Your task to perform on an android device: Go to eBay Image 0: 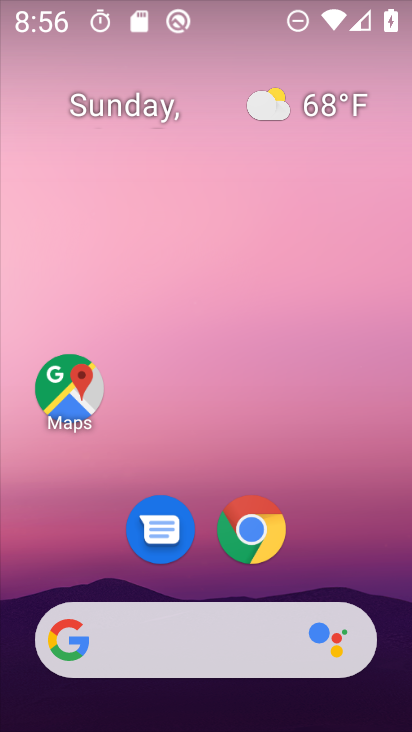
Step 0: press home button
Your task to perform on an android device: Go to eBay Image 1: 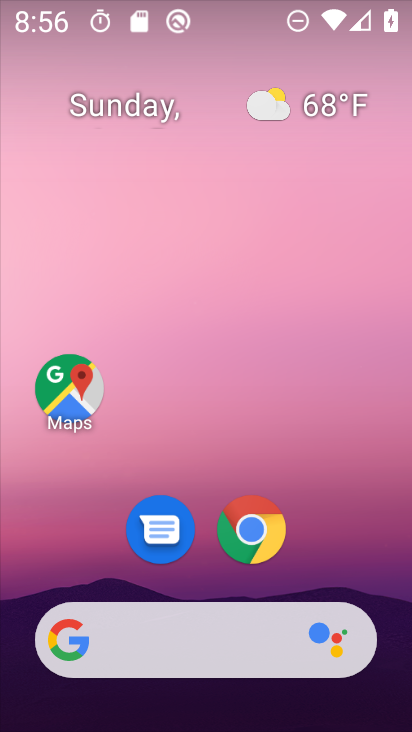
Step 1: click (251, 523)
Your task to perform on an android device: Go to eBay Image 2: 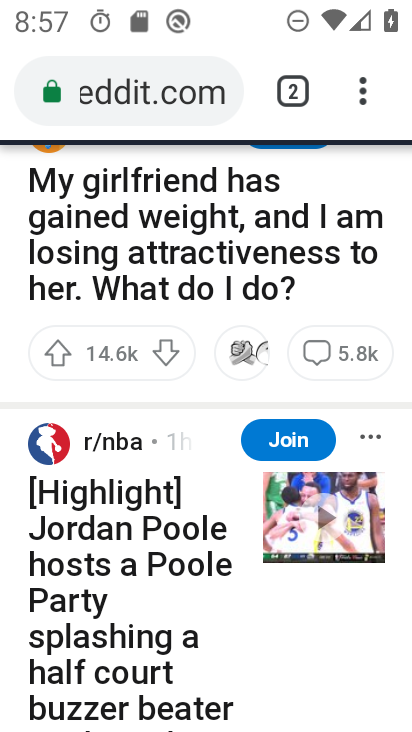
Step 2: click (291, 81)
Your task to perform on an android device: Go to eBay Image 3: 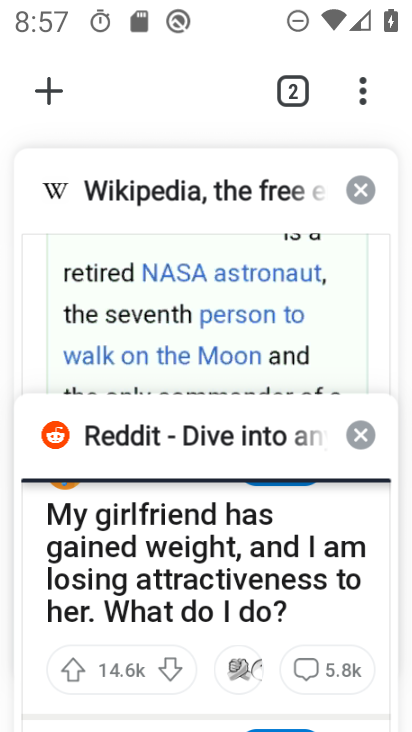
Step 3: click (361, 182)
Your task to perform on an android device: Go to eBay Image 4: 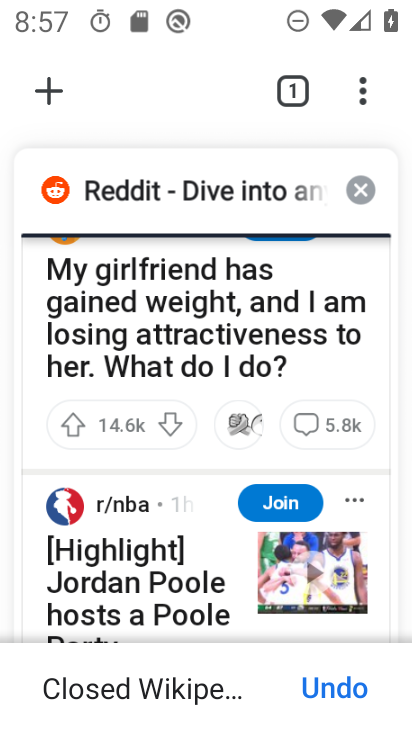
Step 4: click (362, 185)
Your task to perform on an android device: Go to eBay Image 5: 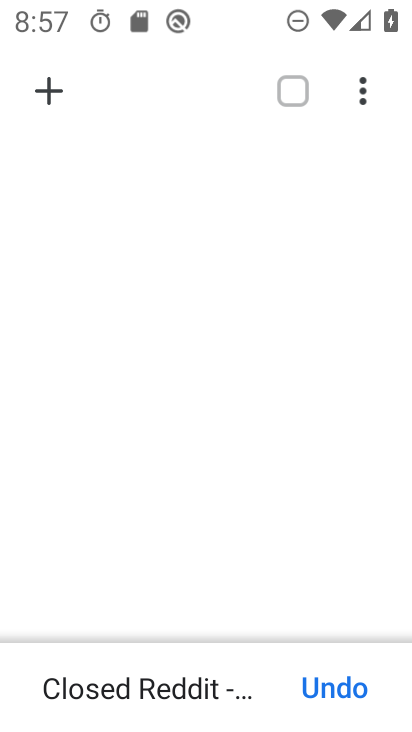
Step 5: click (57, 103)
Your task to perform on an android device: Go to eBay Image 6: 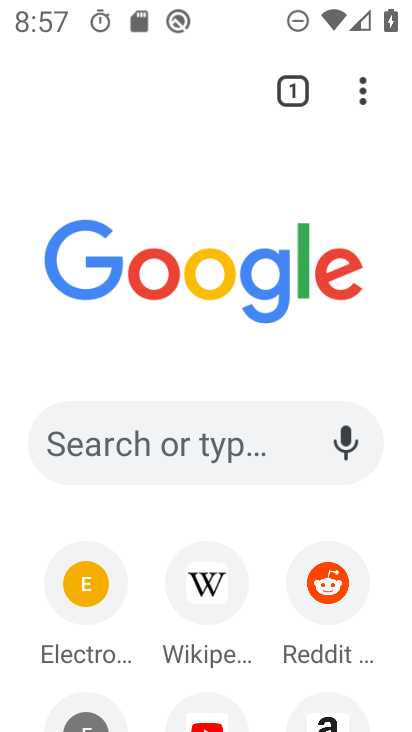
Step 6: click (135, 445)
Your task to perform on an android device: Go to eBay Image 7: 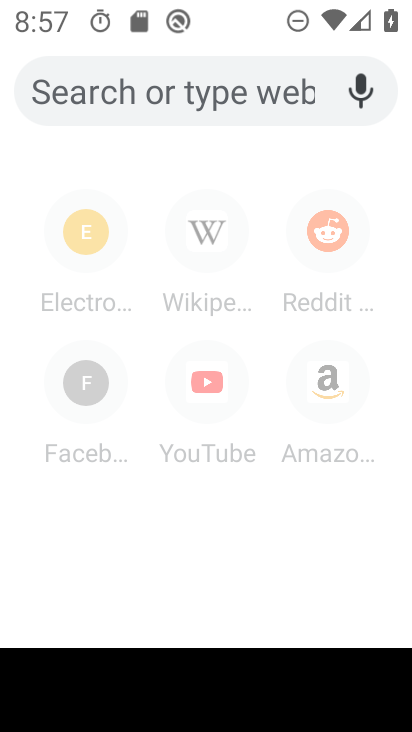
Step 7: type "ebay"
Your task to perform on an android device: Go to eBay Image 8: 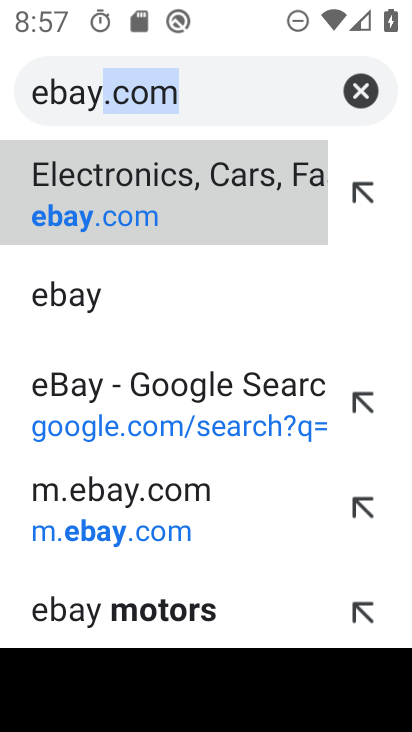
Step 8: click (170, 201)
Your task to perform on an android device: Go to eBay Image 9: 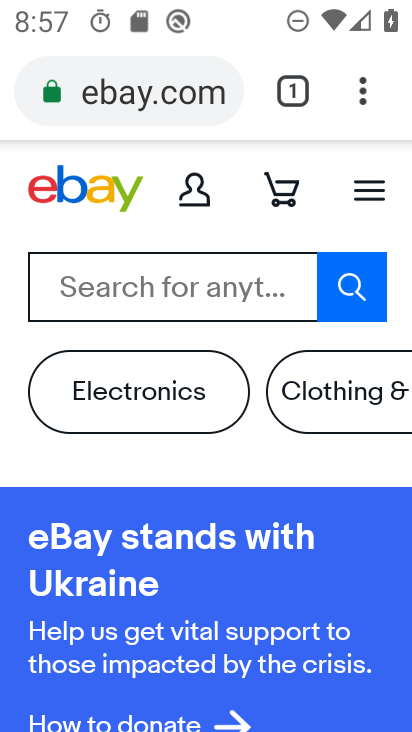
Step 9: drag from (265, 469) to (291, 85)
Your task to perform on an android device: Go to eBay Image 10: 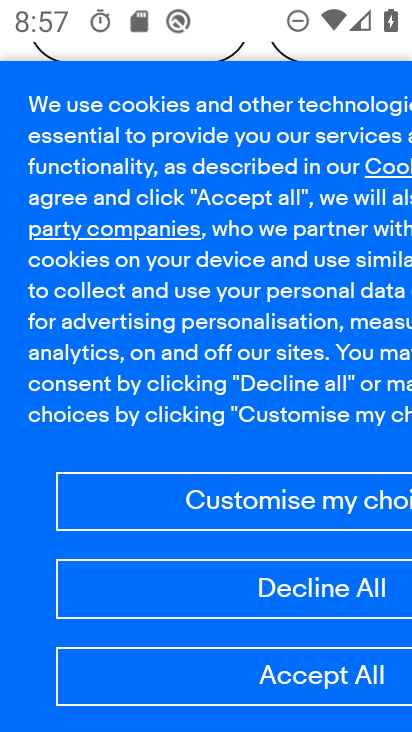
Step 10: click (348, 673)
Your task to perform on an android device: Go to eBay Image 11: 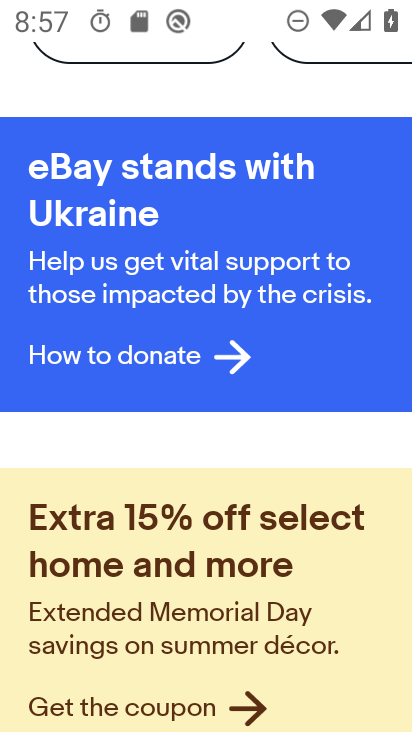
Step 11: task complete